Your task to perform on an android device: Turn on the flashlight Image 0: 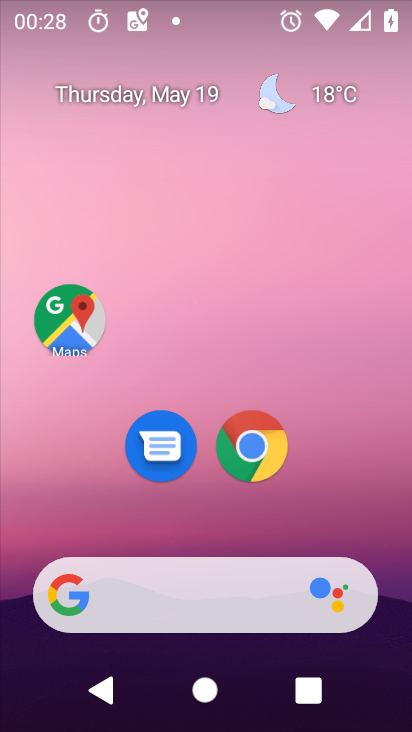
Step 0: drag from (253, 5) to (225, 398)
Your task to perform on an android device: Turn on the flashlight Image 1: 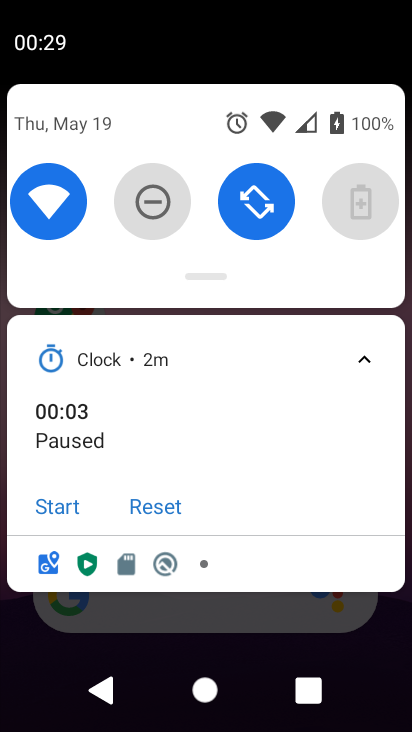
Step 1: task complete